Your task to perform on an android device: Search for Italian restaurants on Maps Image 0: 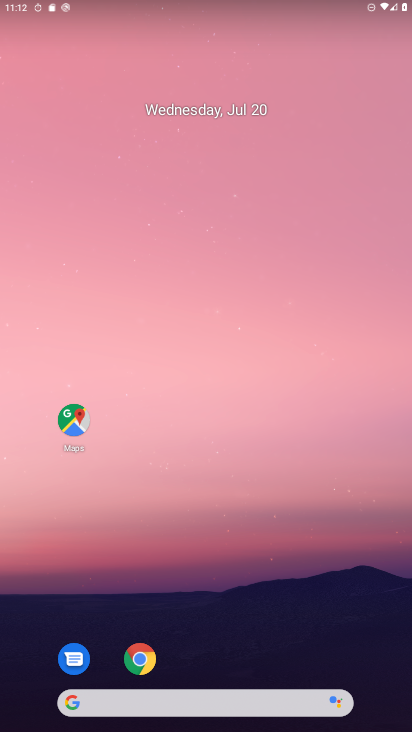
Step 0: drag from (306, 565) to (250, 10)
Your task to perform on an android device: Search for Italian restaurants on Maps Image 1: 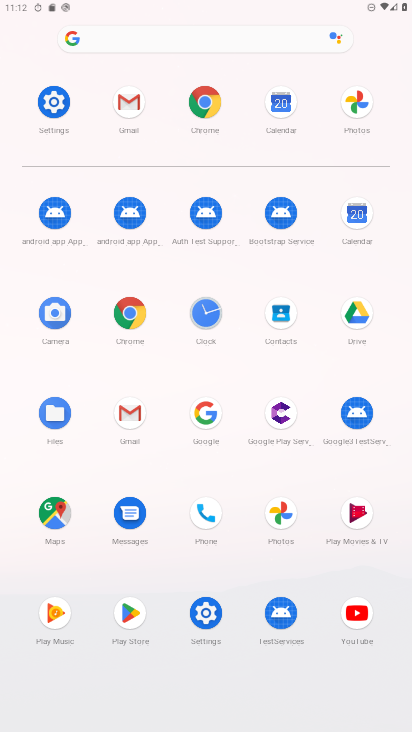
Step 1: click (57, 504)
Your task to perform on an android device: Search for Italian restaurants on Maps Image 2: 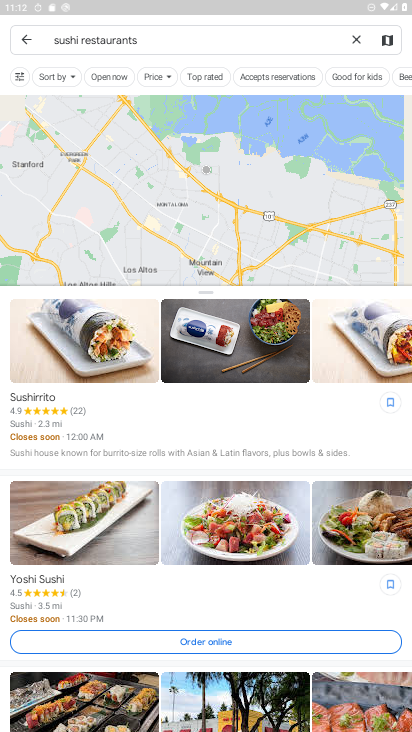
Step 2: click (355, 35)
Your task to perform on an android device: Search for Italian restaurants on Maps Image 3: 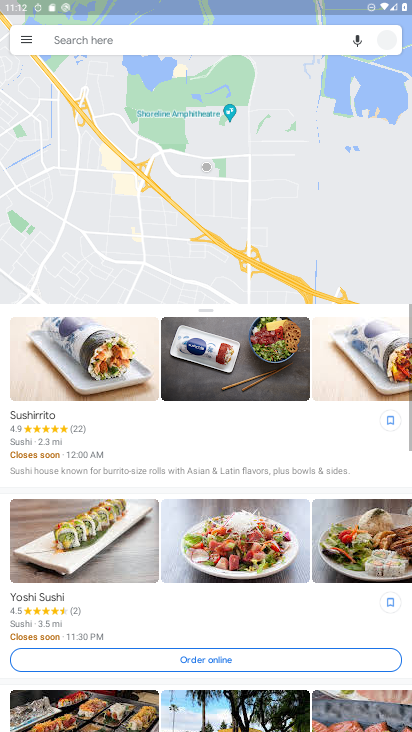
Step 3: click (236, 48)
Your task to perform on an android device: Search for Italian restaurants on Maps Image 4: 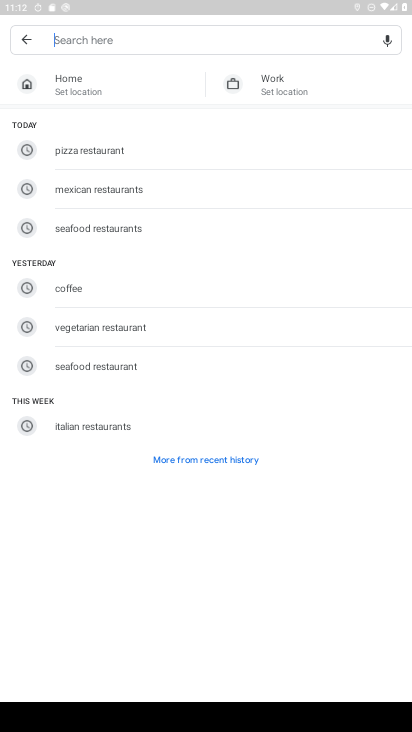
Step 4: type "Italian restaurants"
Your task to perform on an android device: Search for Italian restaurants on Maps Image 5: 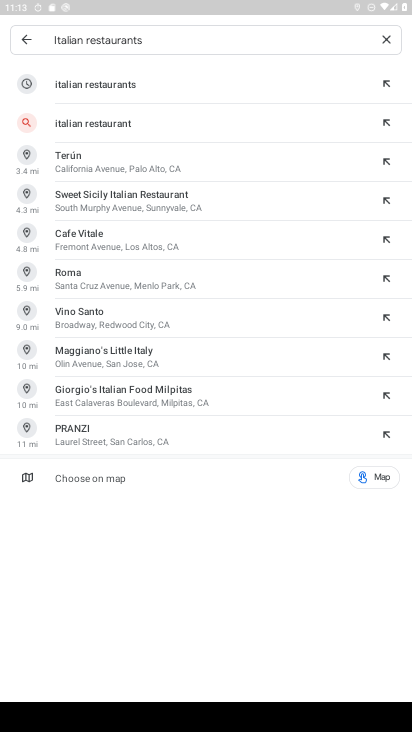
Step 5: click (196, 83)
Your task to perform on an android device: Search for Italian restaurants on Maps Image 6: 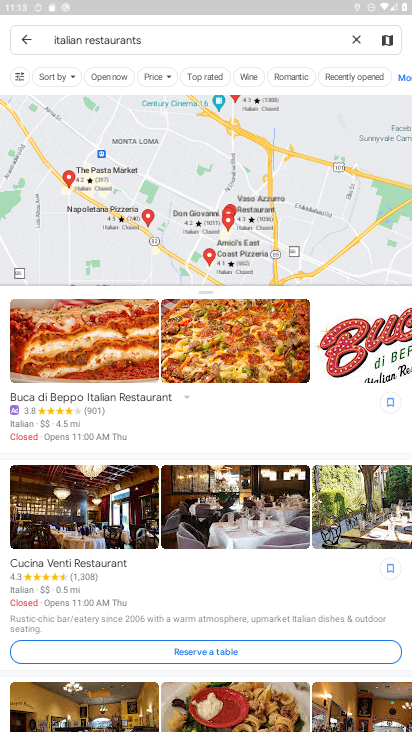
Step 6: task complete